Your task to perform on an android device: manage bookmarks in the chrome app Image 0: 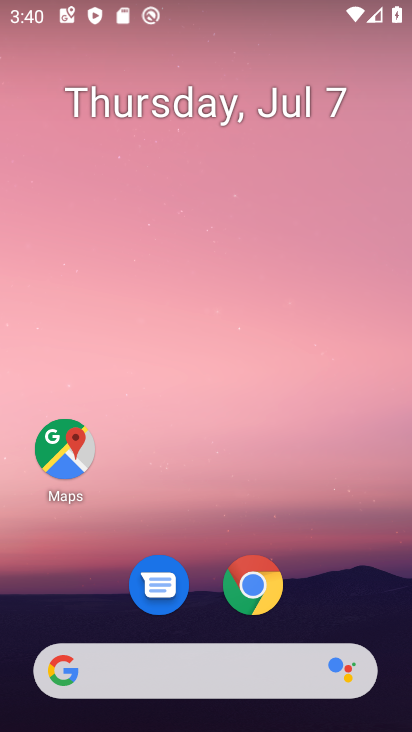
Step 0: click (244, 586)
Your task to perform on an android device: manage bookmarks in the chrome app Image 1: 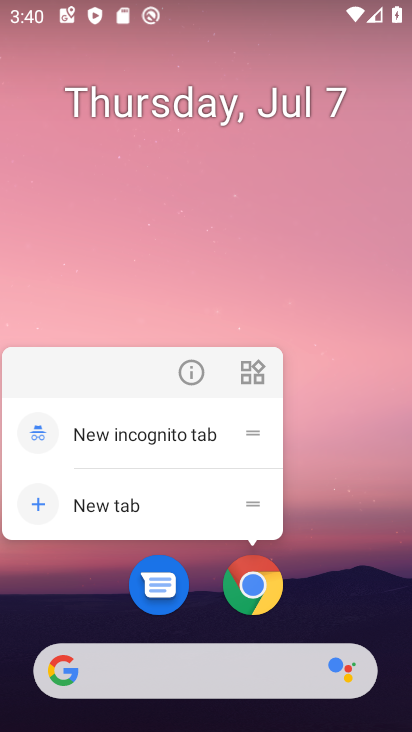
Step 1: click (245, 583)
Your task to perform on an android device: manage bookmarks in the chrome app Image 2: 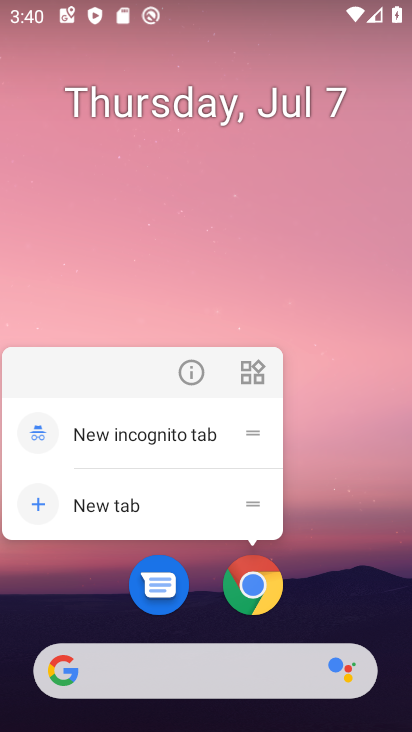
Step 2: click (253, 582)
Your task to perform on an android device: manage bookmarks in the chrome app Image 3: 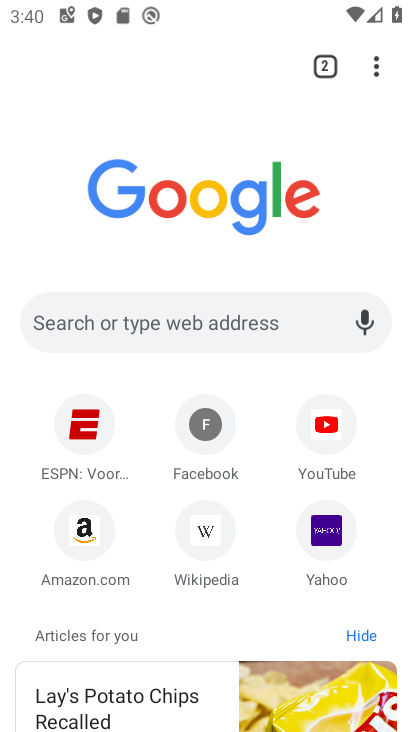
Step 3: click (376, 68)
Your task to perform on an android device: manage bookmarks in the chrome app Image 4: 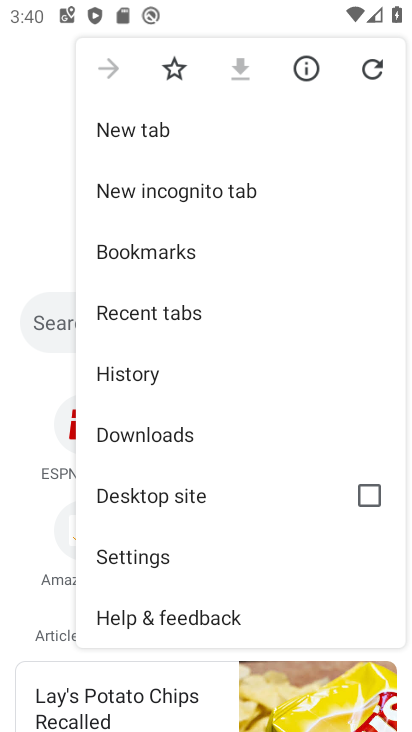
Step 4: click (198, 253)
Your task to perform on an android device: manage bookmarks in the chrome app Image 5: 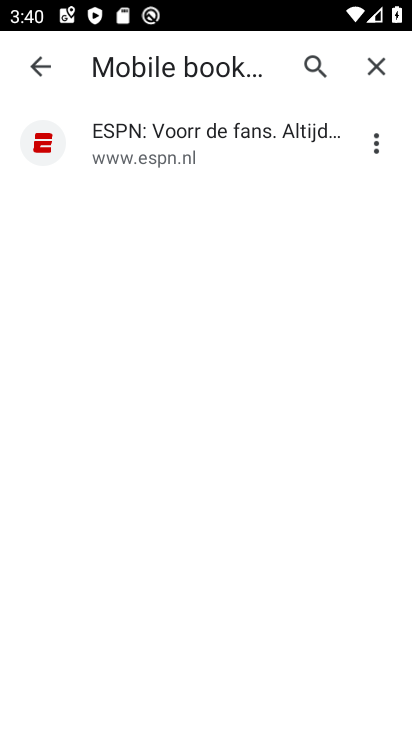
Step 5: click (378, 140)
Your task to perform on an android device: manage bookmarks in the chrome app Image 6: 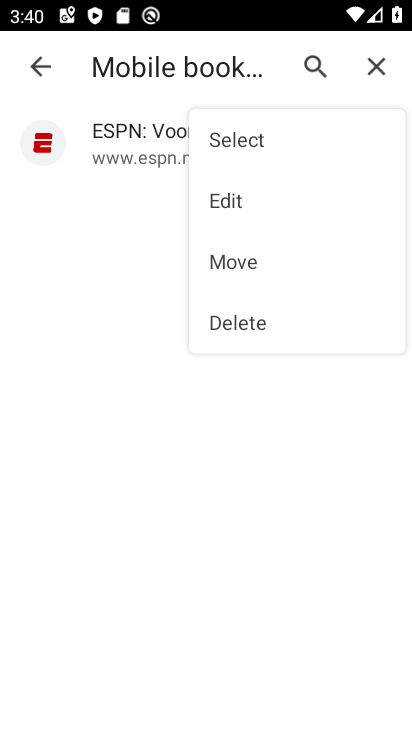
Step 6: click (290, 188)
Your task to perform on an android device: manage bookmarks in the chrome app Image 7: 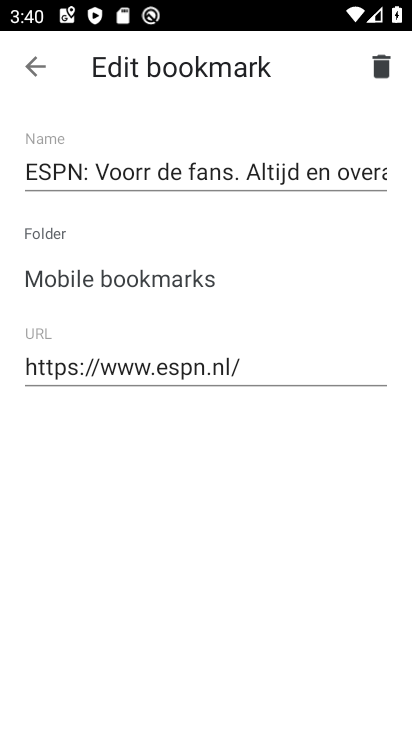
Step 7: click (33, 62)
Your task to perform on an android device: manage bookmarks in the chrome app Image 8: 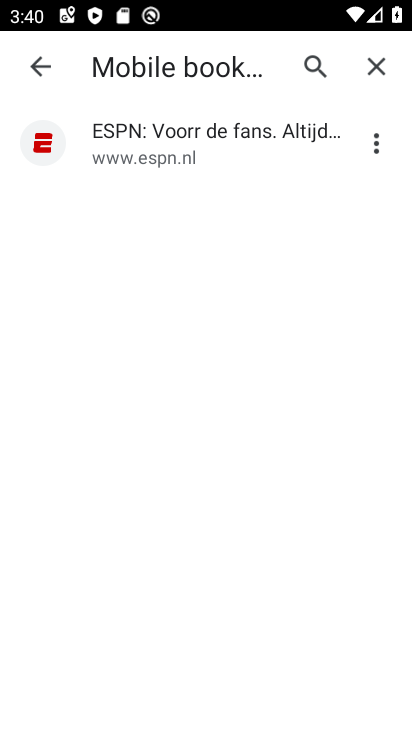
Step 8: task complete